Your task to perform on an android device: open a new tab in the chrome app Image 0: 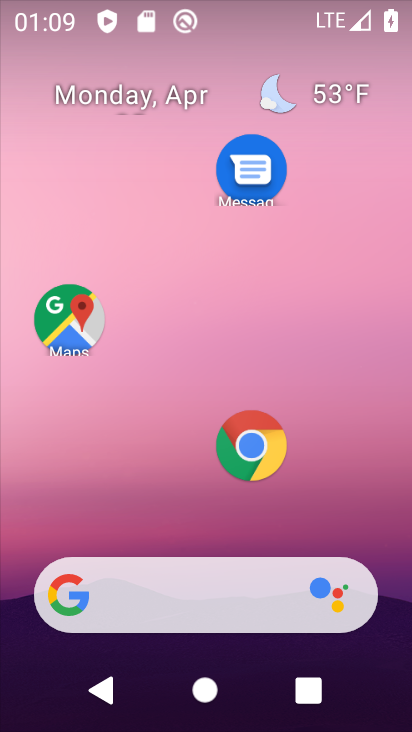
Step 0: click (236, 467)
Your task to perform on an android device: open a new tab in the chrome app Image 1: 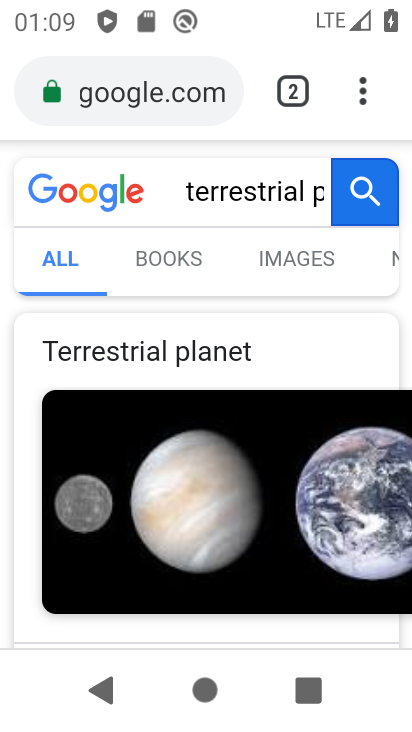
Step 1: click (363, 92)
Your task to perform on an android device: open a new tab in the chrome app Image 2: 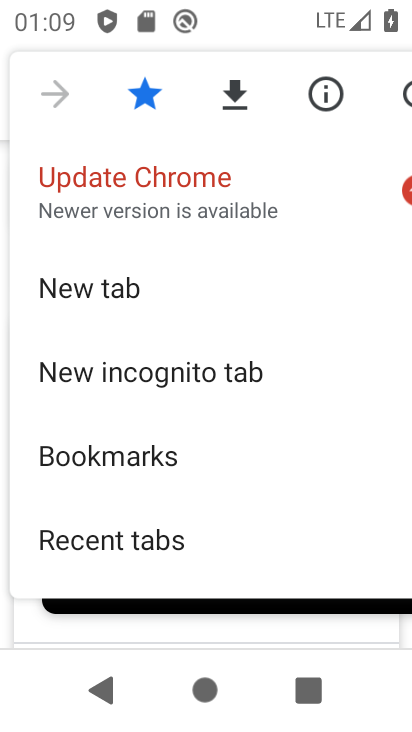
Step 2: click (104, 284)
Your task to perform on an android device: open a new tab in the chrome app Image 3: 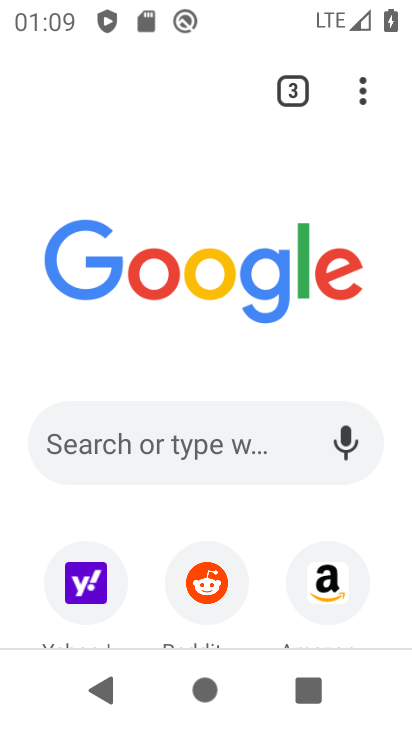
Step 3: task complete